Your task to perform on an android device: check data usage Image 0: 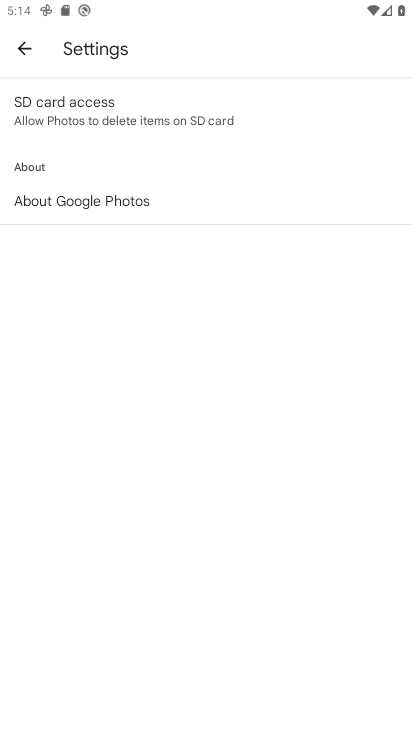
Step 0: press back button
Your task to perform on an android device: check data usage Image 1: 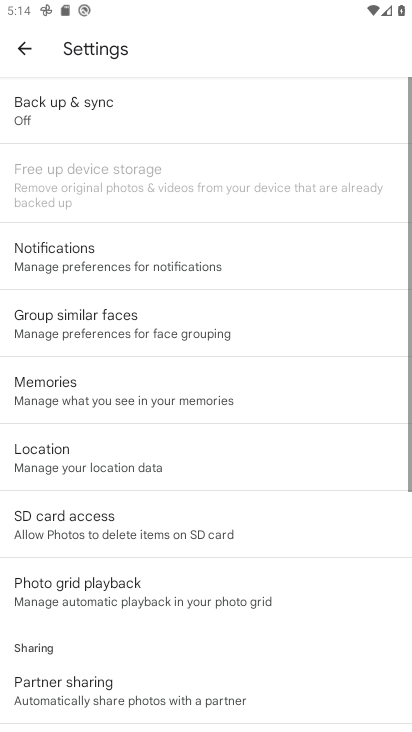
Step 1: press back button
Your task to perform on an android device: check data usage Image 2: 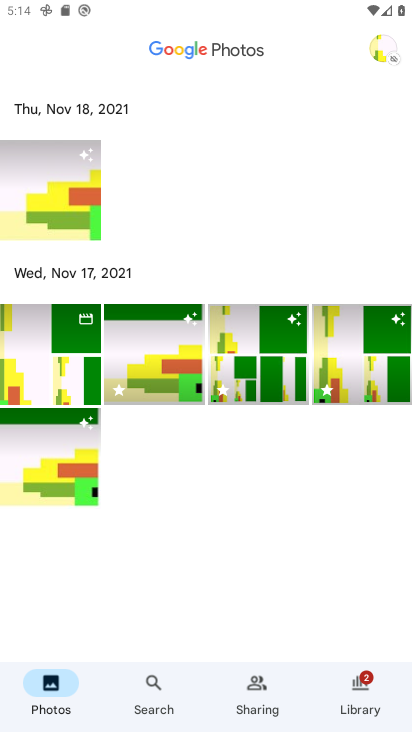
Step 2: press home button
Your task to perform on an android device: check data usage Image 3: 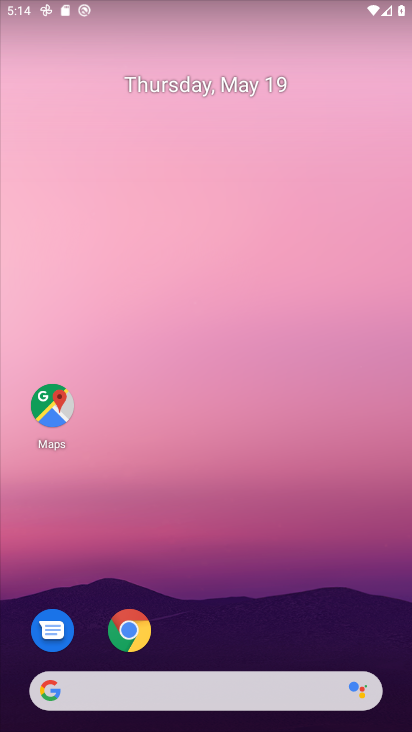
Step 3: drag from (237, 597) to (216, 0)
Your task to perform on an android device: check data usage Image 4: 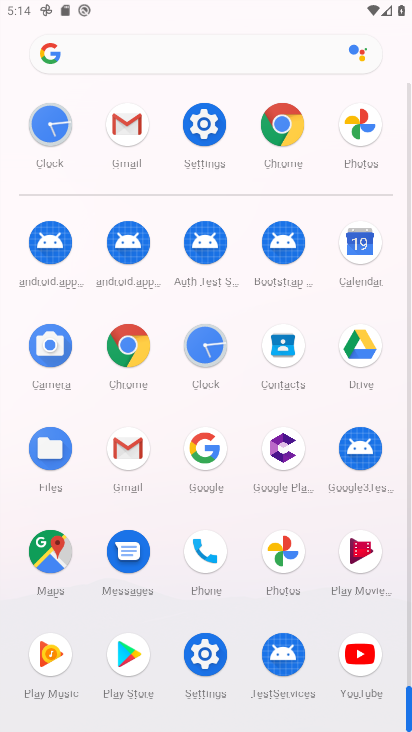
Step 4: click (204, 653)
Your task to perform on an android device: check data usage Image 5: 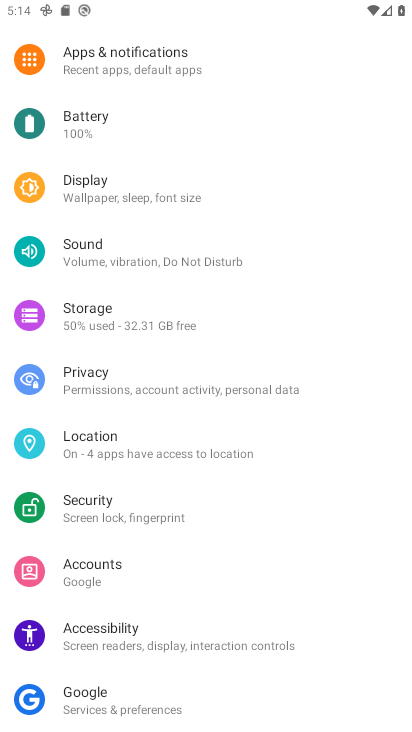
Step 5: drag from (191, 133) to (189, 451)
Your task to perform on an android device: check data usage Image 6: 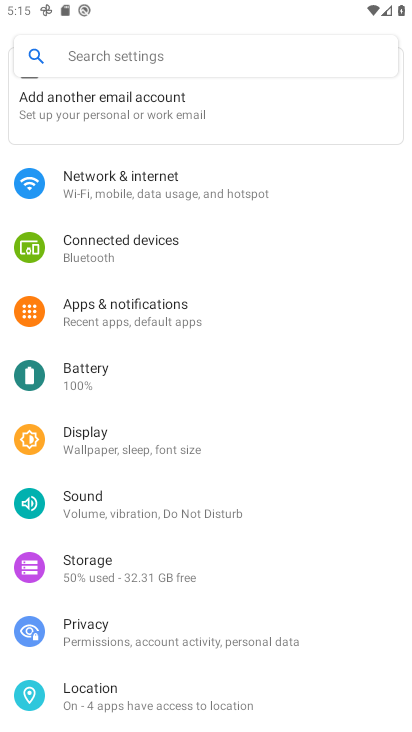
Step 6: click (243, 193)
Your task to perform on an android device: check data usage Image 7: 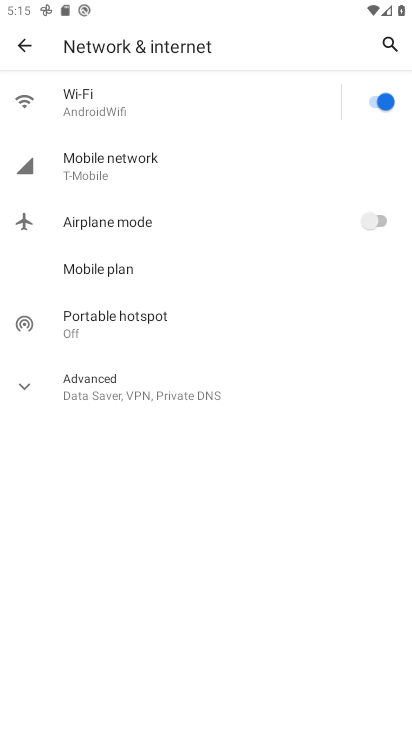
Step 7: click (116, 177)
Your task to perform on an android device: check data usage Image 8: 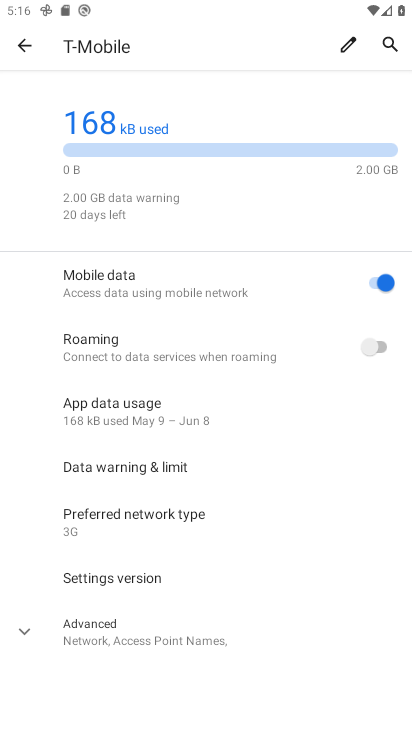
Step 8: drag from (210, 441) to (290, 150)
Your task to perform on an android device: check data usage Image 9: 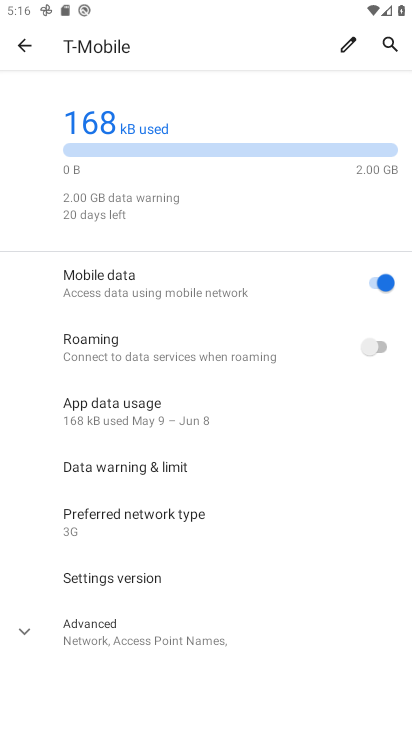
Step 9: click (39, 633)
Your task to perform on an android device: check data usage Image 10: 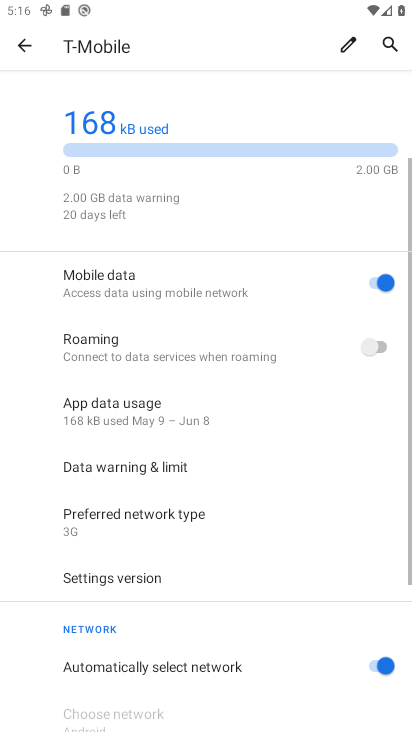
Step 10: task complete